Your task to perform on an android device: turn on sleep mode Image 0: 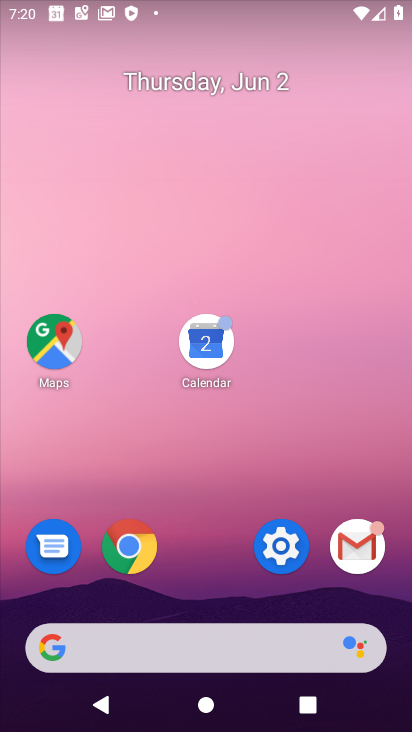
Step 0: click (282, 542)
Your task to perform on an android device: turn on sleep mode Image 1: 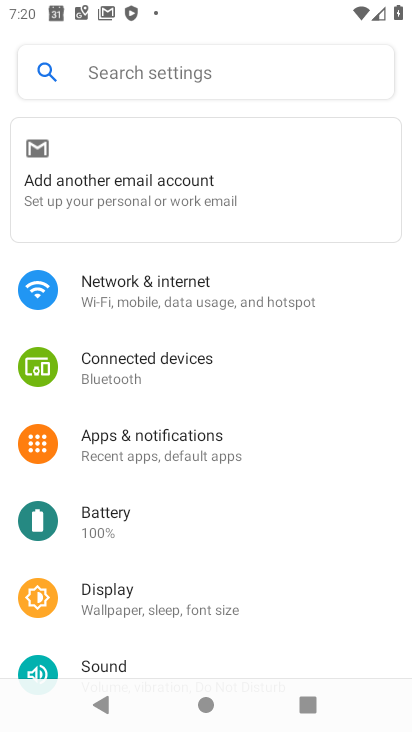
Step 1: click (282, 550)
Your task to perform on an android device: turn on sleep mode Image 2: 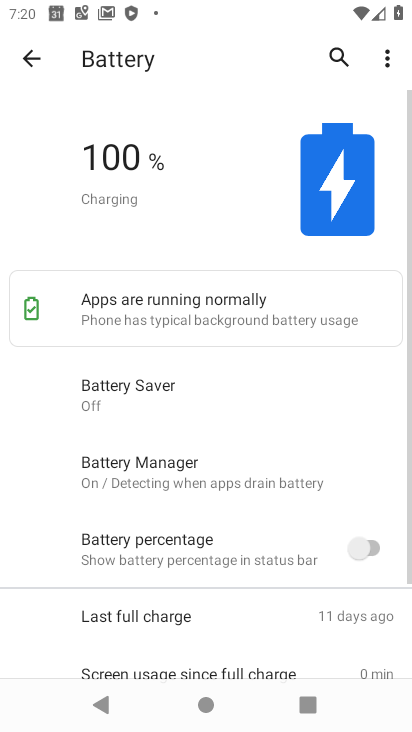
Step 2: click (34, 77)
Your task to perform on an android device: turn on sleep mode Image 3: 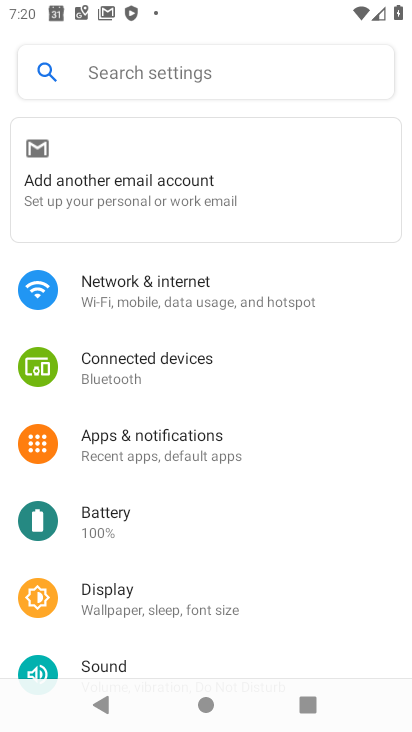
Step 3: click (168, 73)
Your task to perform on an android device: turn on sleep mode Image 4: 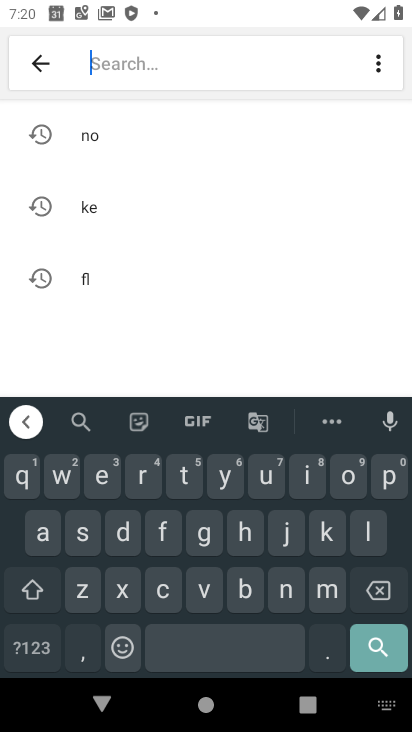
Step 4: click (81, 554)
Your task to perform on an android device: turn on sleep mode Image 5: 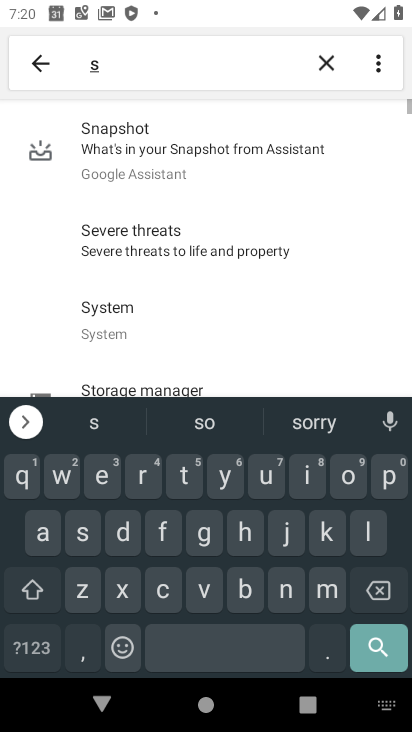
Step 5: click (363, 535)
Your task to perform on an android device: turn on sleep mode Image 6: 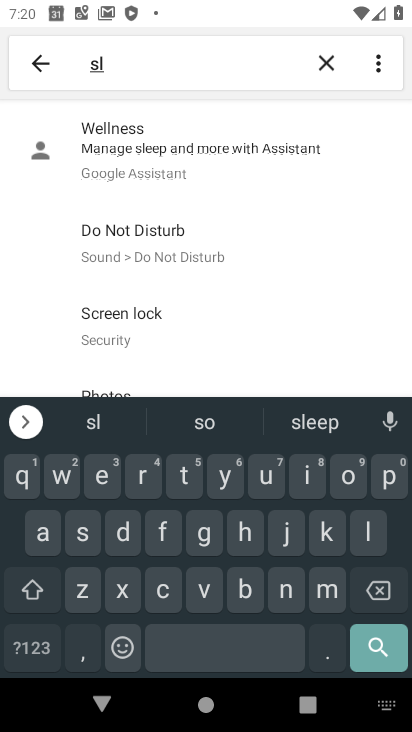
Step 6: click (124, 177)
Your task to perform on an android device: turn on sleep mode Image 7: 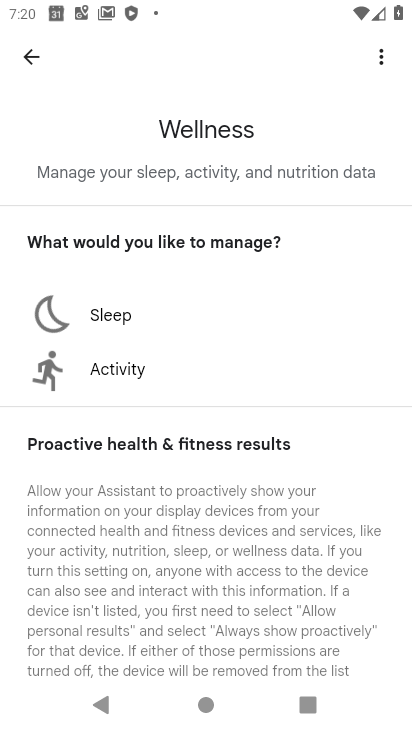
Step 7: click (103, 332)
Your task to perform on an android device: turn on sleep mode Image 8: 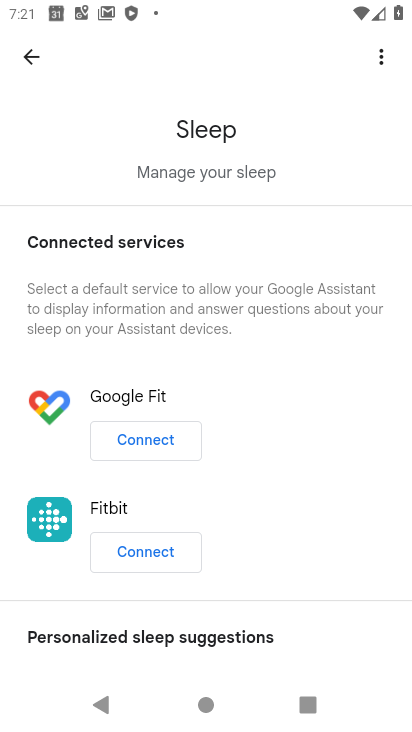
Step 8: task complete